Your task to perform on an android device: Open settings Image 0: 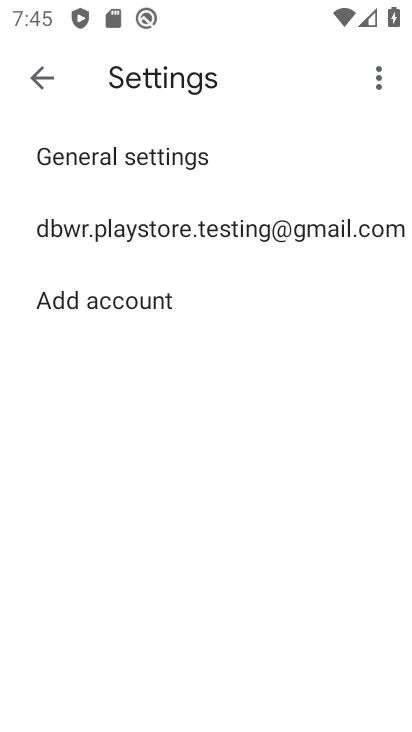
Step 0: press home button
Your task to perform on an android device: Open settings Image 1: 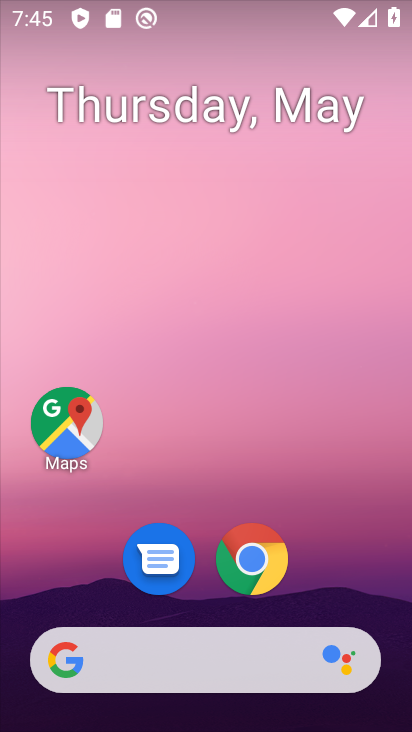
Step 1: drag from (334, 571) to (379, 160)
Your task to perform on an android device: Open settings Image 2: 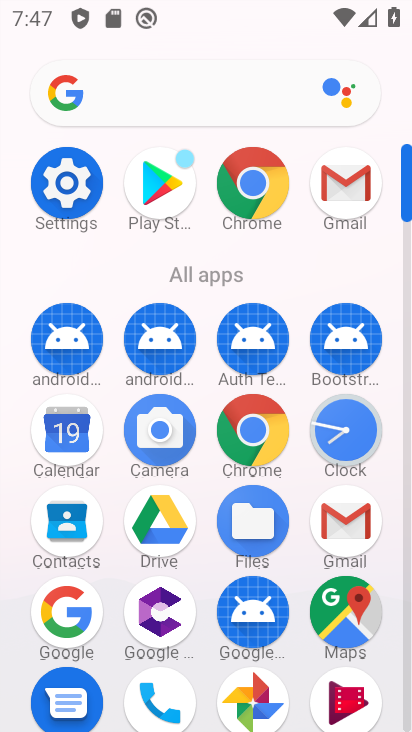
Step 2: click (59, 164)
Your task to perform on an android device: Open settings Image 3: 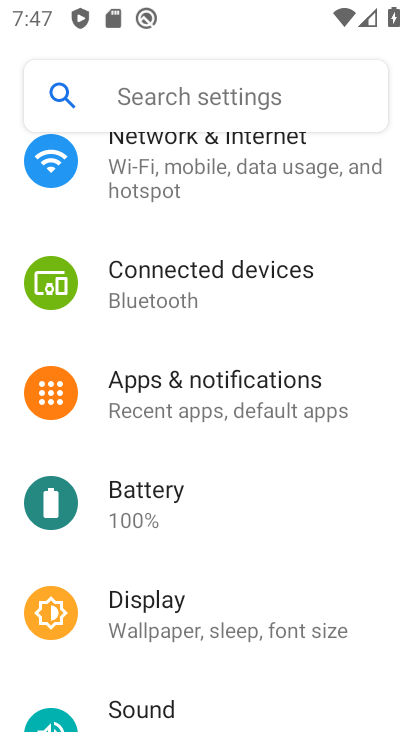
Step 3: task complete